Your task to perform on an android device: open chrome and create a bookmark for the current page Image 0: 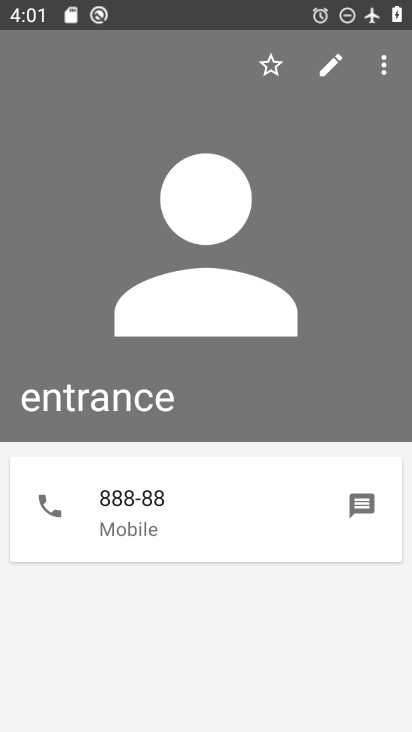
Step 0: press home button
Your task to perform on an android device: open chrome and create a bookmark for the current page Image 1: 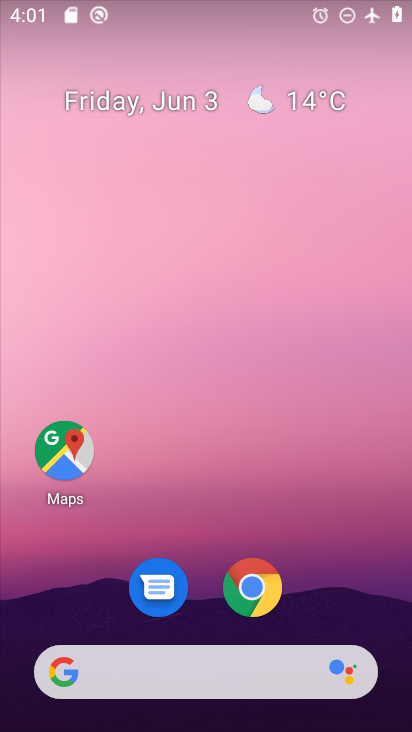
Step 1: click (253, 593)
Your task to perform on an android device: open chrome and create a bookmark for the current page Image 2: 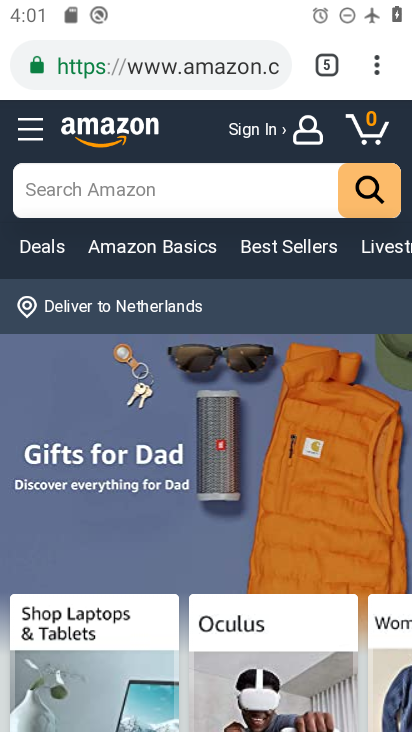
Step 2: click (376, 70)
Your task to perform on an android device: open chrome and create a bookmark for the current page Image 3: 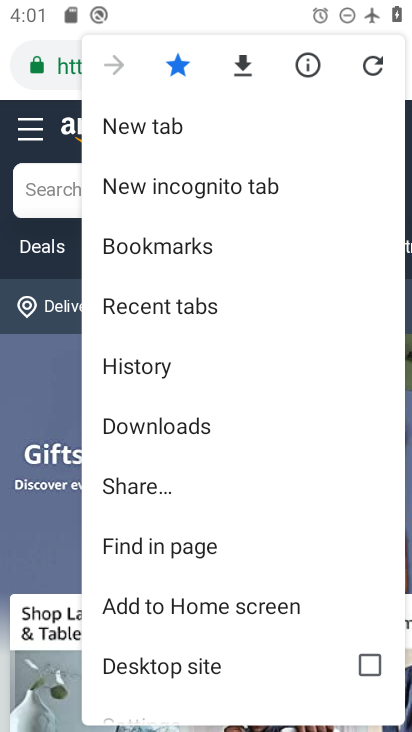
Step 3: click (108, 58)
Your task to perform on an android device: open chrome and create a bookmark for the current page Image 4: 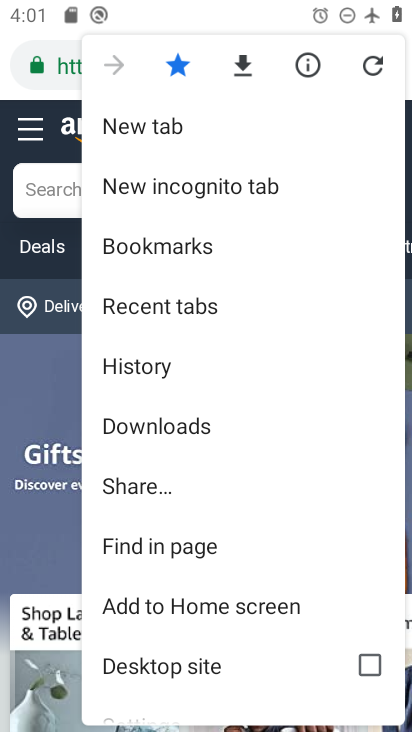
Step 4: task complete